Your task to perform on an android device: Search for coffee table on Crate & Barrel Image 0: 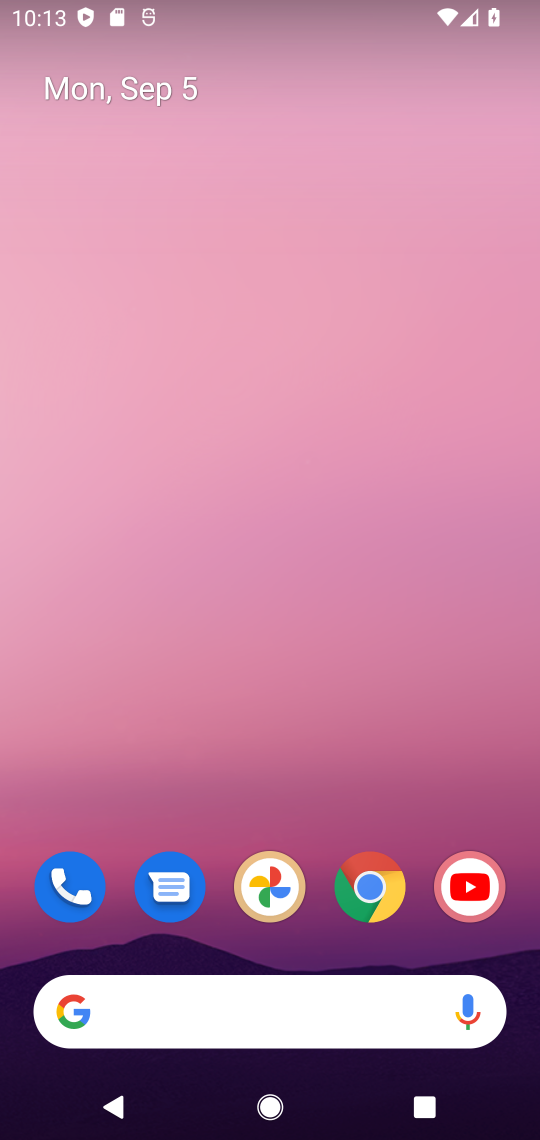
Step 0: click (371, 884)
Your task to perform on an android device: Search for coffee table on Crate & Barrel Image 1: 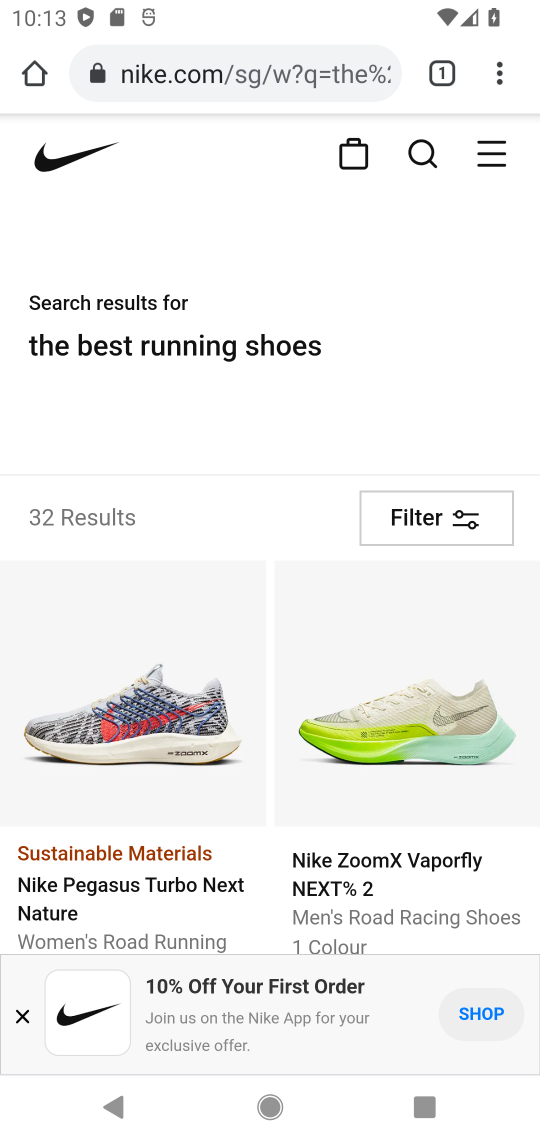
Step 1: click (279, 75)
Your task to perform on an android device: Search for coffee table on Crate & Barrel Image 2: 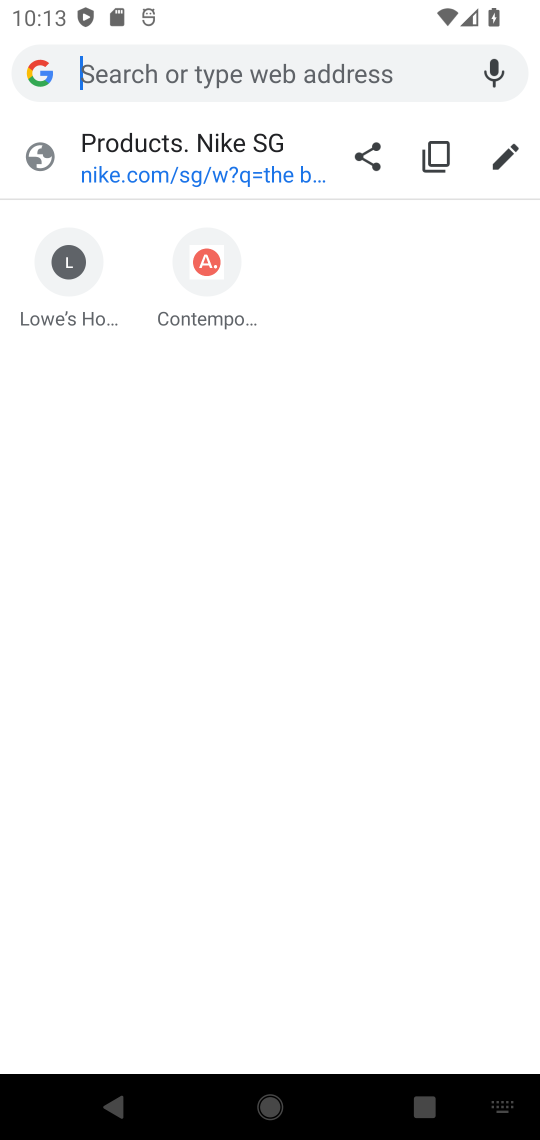
Step 2: type "crate and barrel"
Your task to perform on an android device: Search for coffee table on Crate & Barrel Image 3: 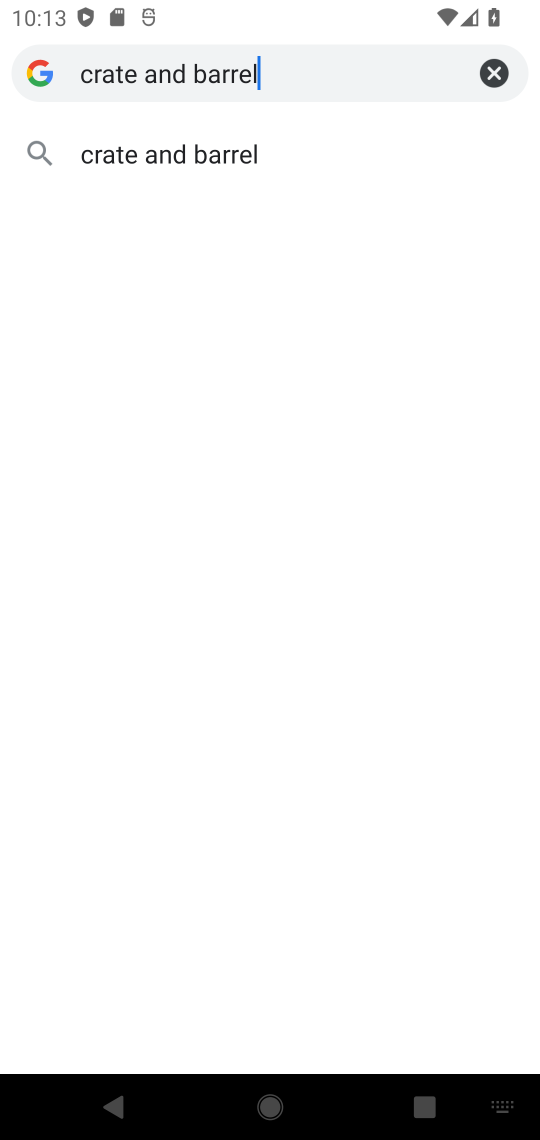
Step 3: click (178, 174)
Your task to perform on an android device: Search for coffee table on Crate & Barrel Image 4: 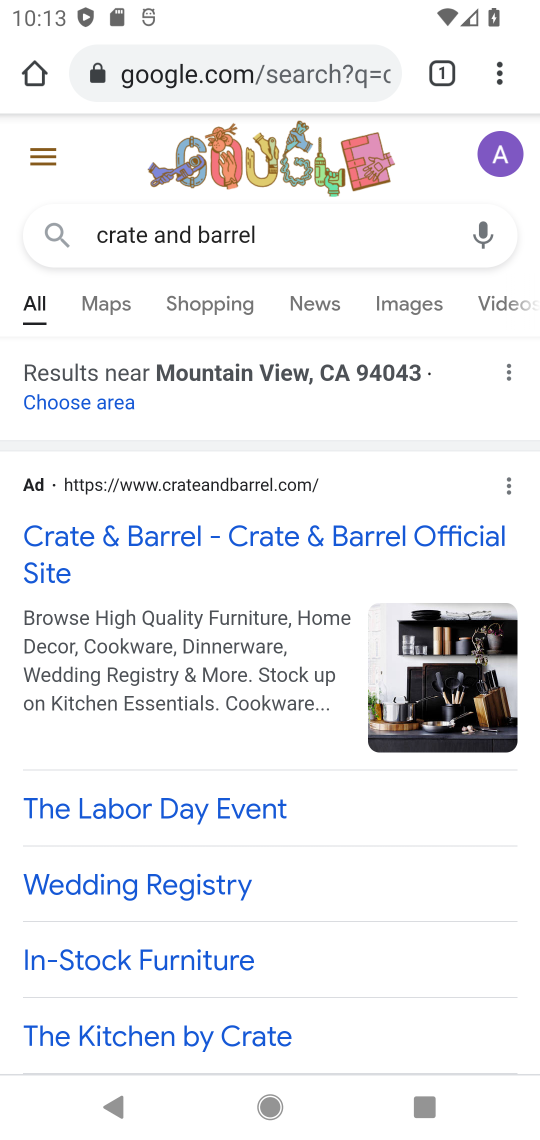
Step 4: click (233, 550)
Your task to perform on an android device: Search for coffee table on Crate & Barrel Image 5: 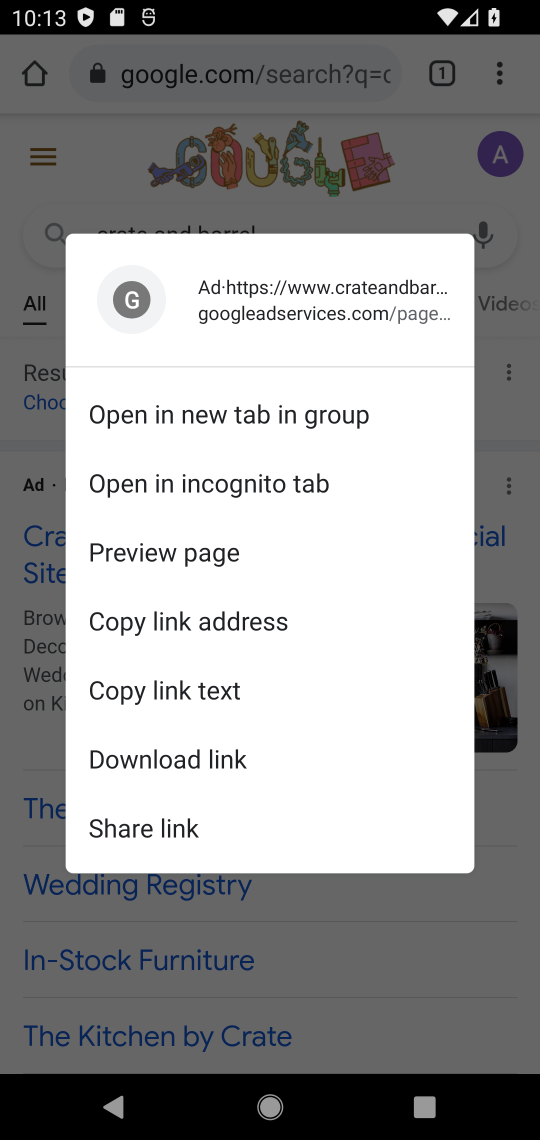
Step 5: click (37, 562)
Your task to perform on an android device: Search for coffee table on Crate & Barrel Image 6: 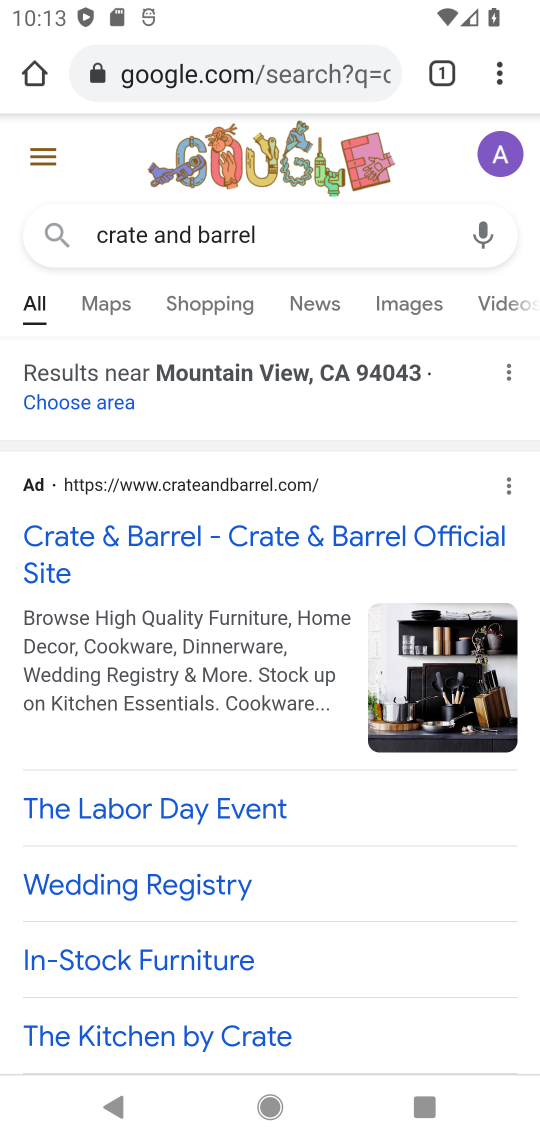
Step 6: click (382, 536)
Your task to perform on an android device: Search for coffee table on Crate & Barrel Image 7: 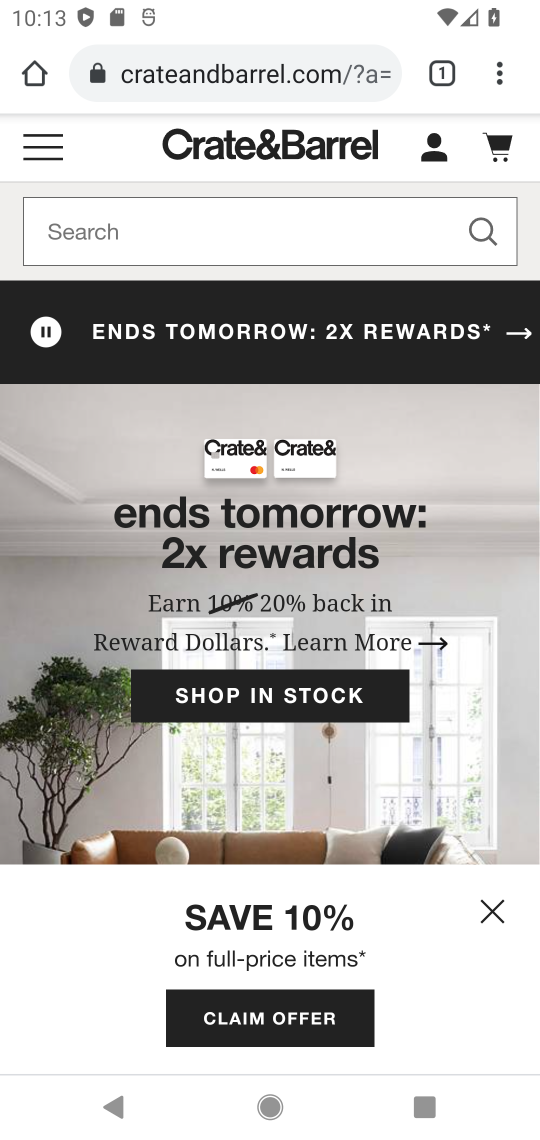
Step 7: click (308, 176)
Your task to perform on an android device: Search for coffee table on Crate & Barrel Image 8: 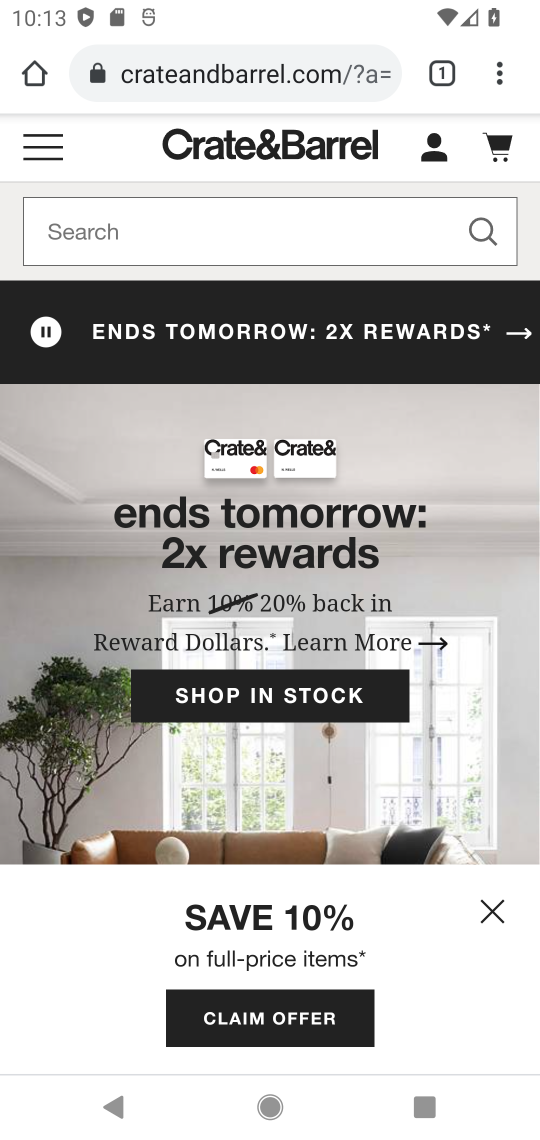
Step 8: click (269, 222)
Your task to perform on an android device: Search for coffee table on Crate & Barrel Image 9: 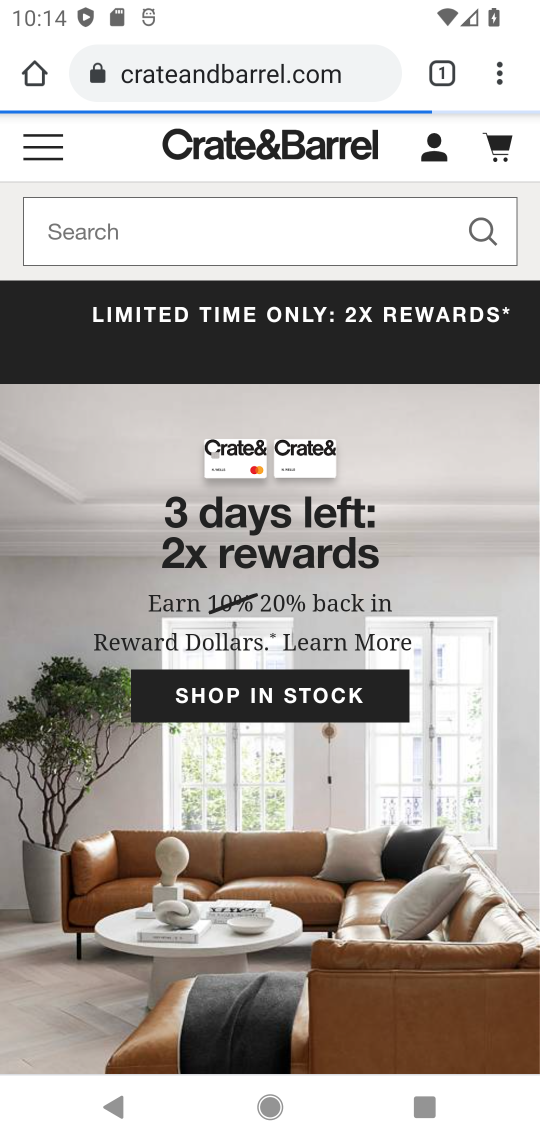
Step 9: click (285, 235)
Your task to perform on an android device: Search for coffee table on Crate & Barrel Image 10: 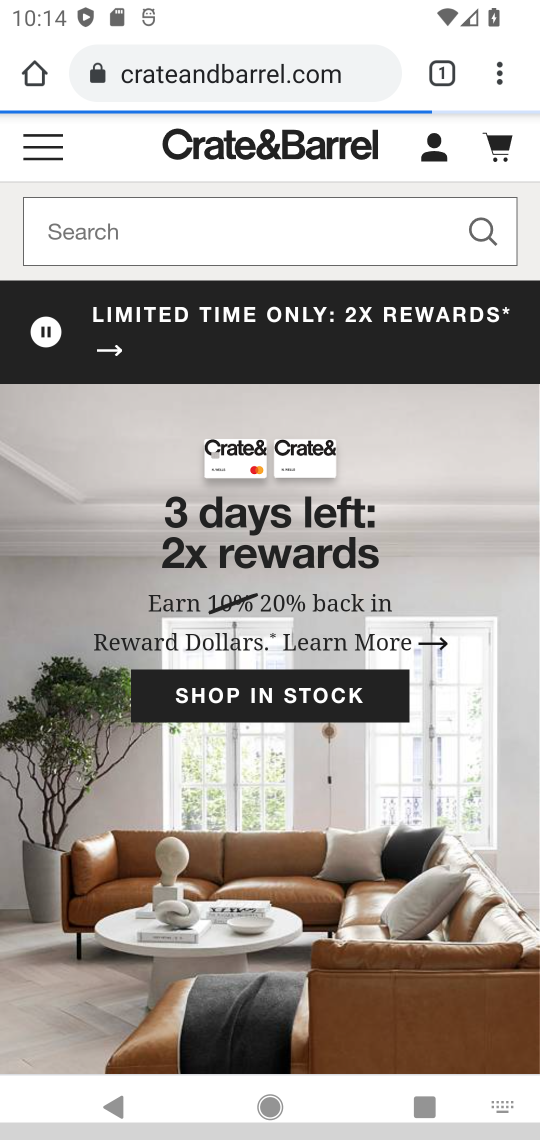
Step 10: click (352, 237)
Your task to perform on an android device: Search for coffee table on Crate & Barrel Image 11: 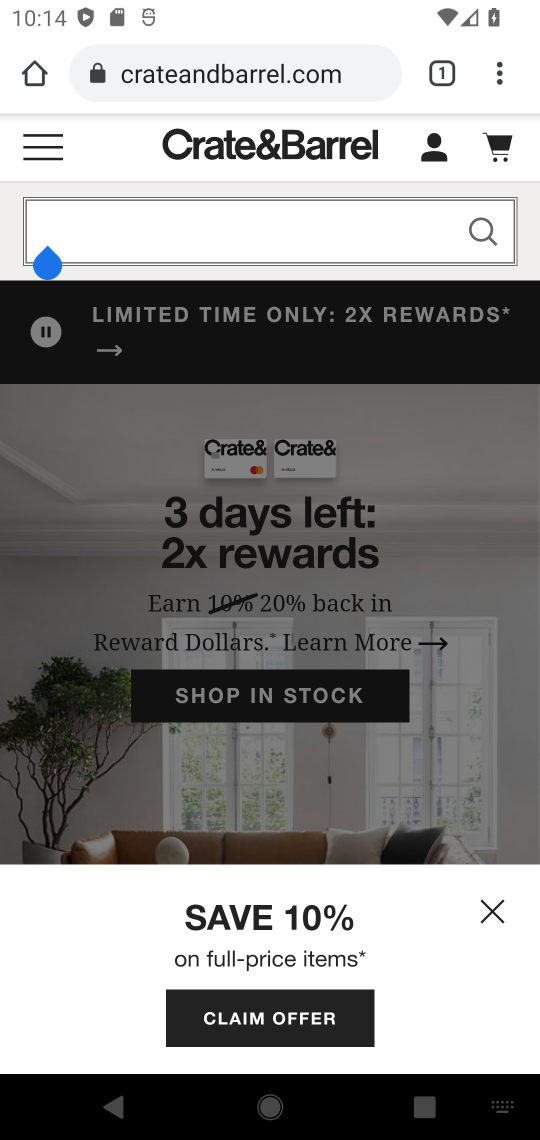
Step 11: click (496, 910)
Your task to perform on an android device: Search for coffee table on Crate & Barrel Image 12: 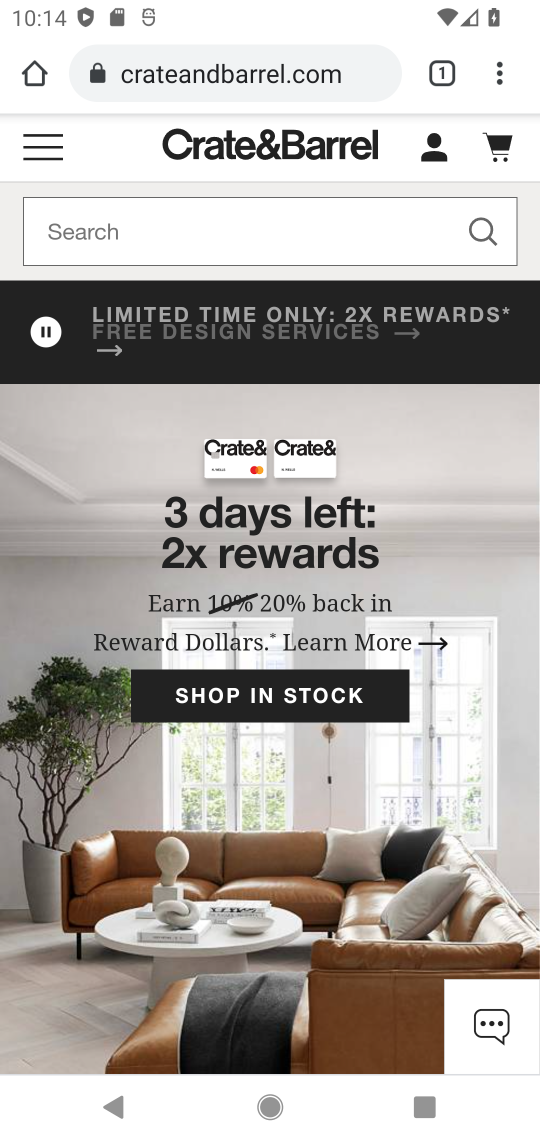
Step 12: click (151, 223)
Your task to perform on an android device: Search for coffee table on Crate & Barrel Image 13: 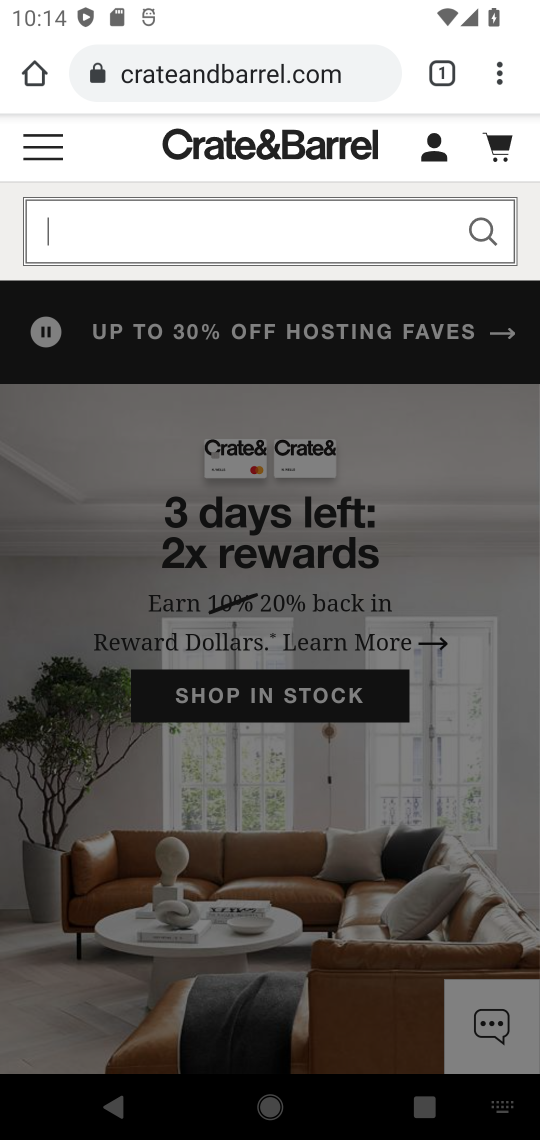
Step 13: type "coffee table"
Your task to perform on an android device: Search for coffee table on Crate & Barrel Image 14: 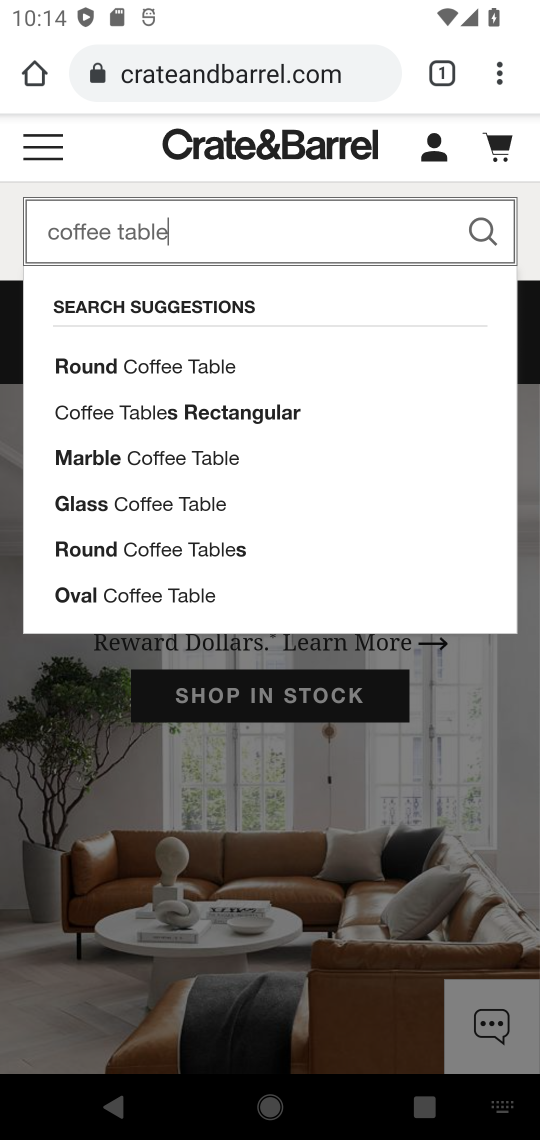
Step 14: click (480, 245)
Your task to perform on an android device: Search for coffee table on Crate & Barrel Image 15: 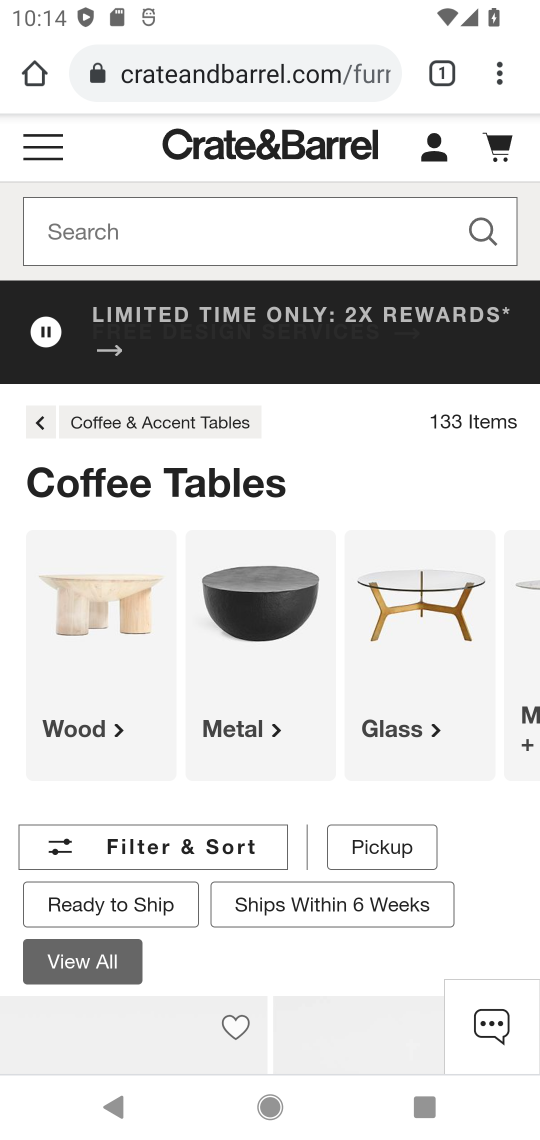
Step 15: task complete